Your task to perform on an android device: Open Google Maps and go to "Timeline" Image 0: 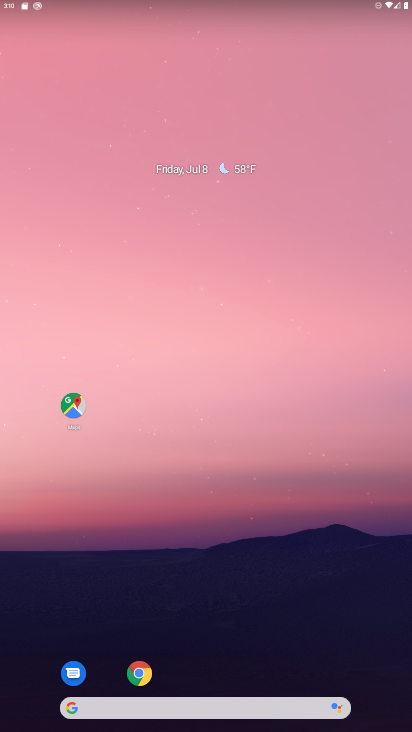
Step 0: click (75, 414)
Your task to perform on an android device: Open Google Maps and go to "Timeline" Image 1: 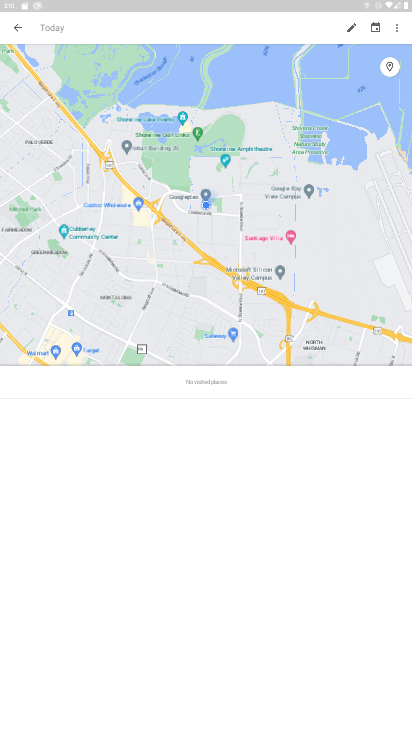
Step 1: task complete